Your task to perform on an android device: Add "macbook pro 15 inch" to the cart on amazon.com, then select checkout. Image 0: 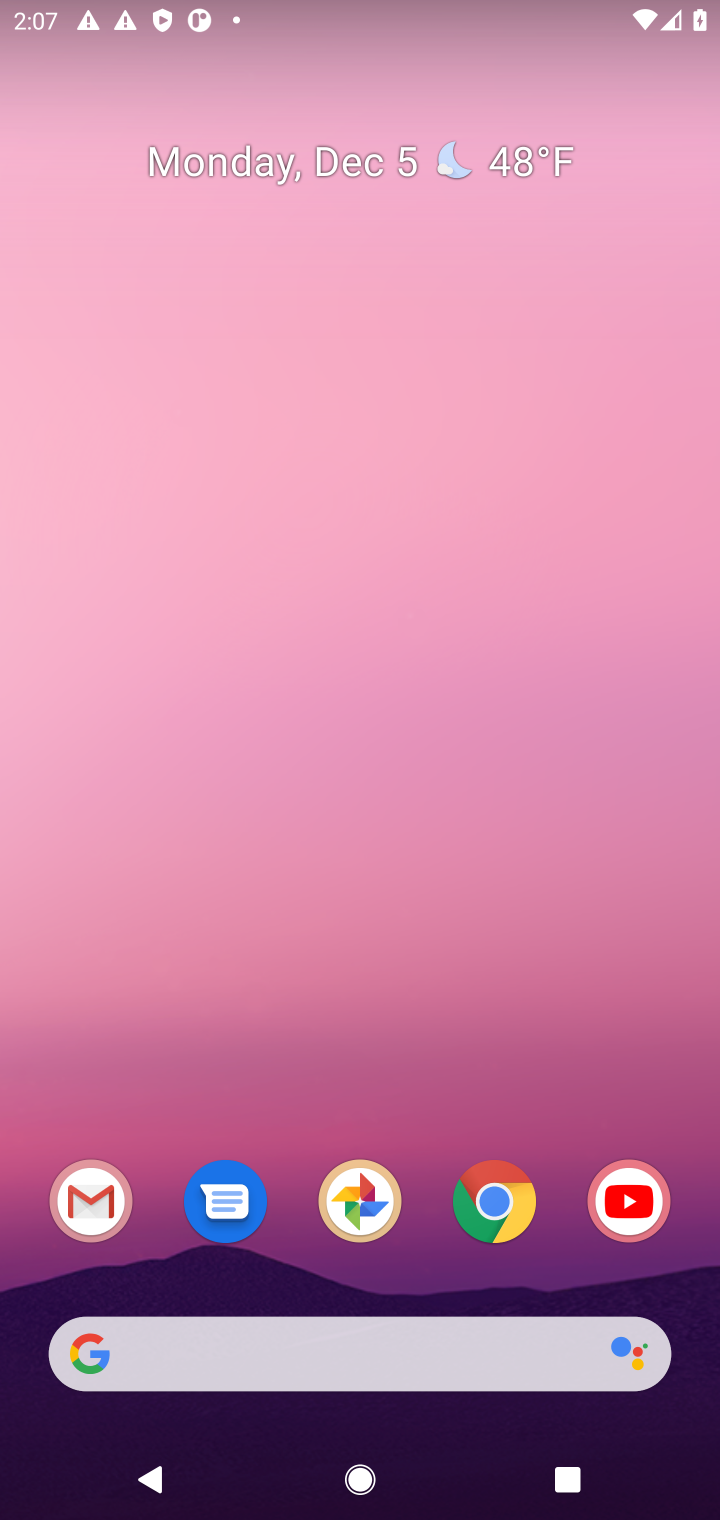
Step 0: click (480, 1192)
Your task to perform on an android device: Add "macbook pro 15 inch" to the cart on amazon.com, then select checkout. Image 1: 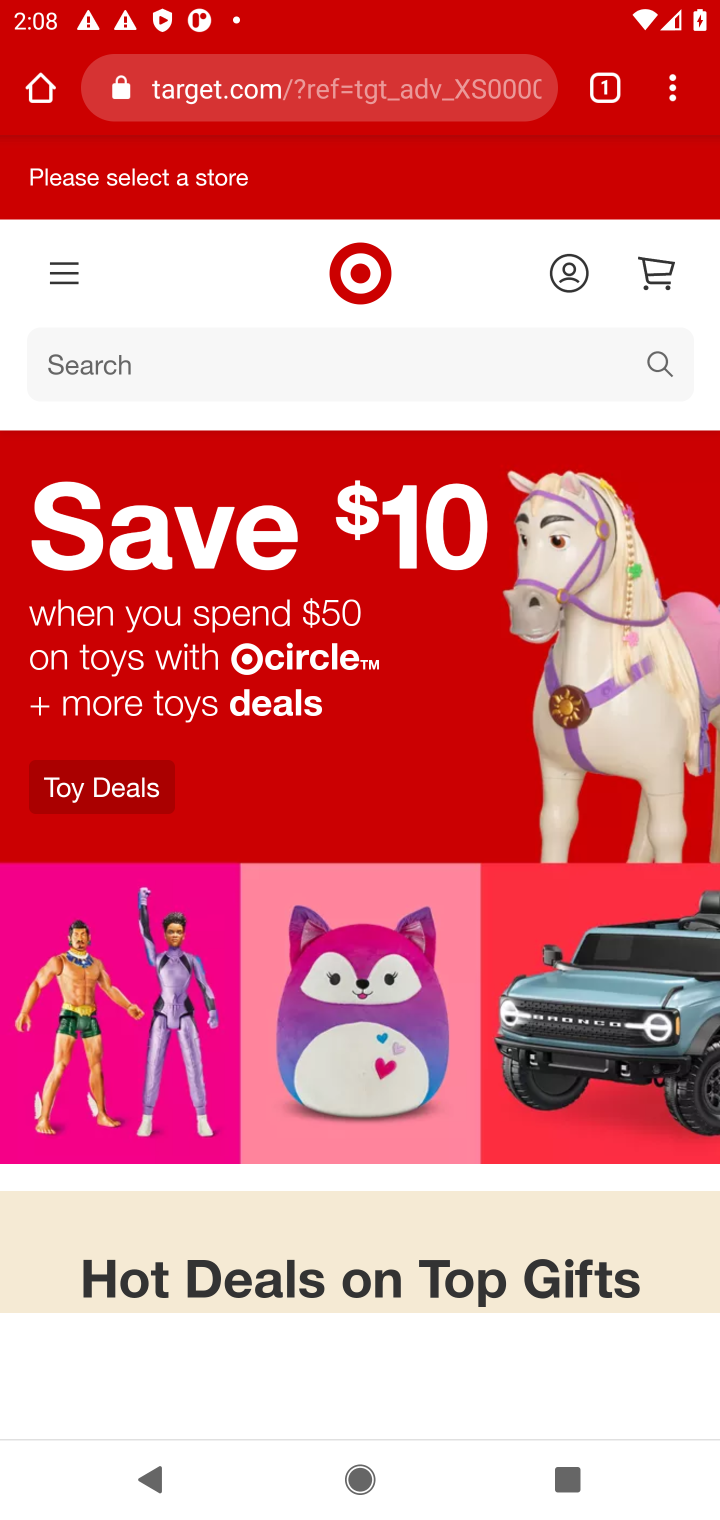
Step 1: click (258, 76)
Your task to perform on an android device: Add "macbook pro 15 inch" to the cart on amazon.com, then select checkout. Image 2: 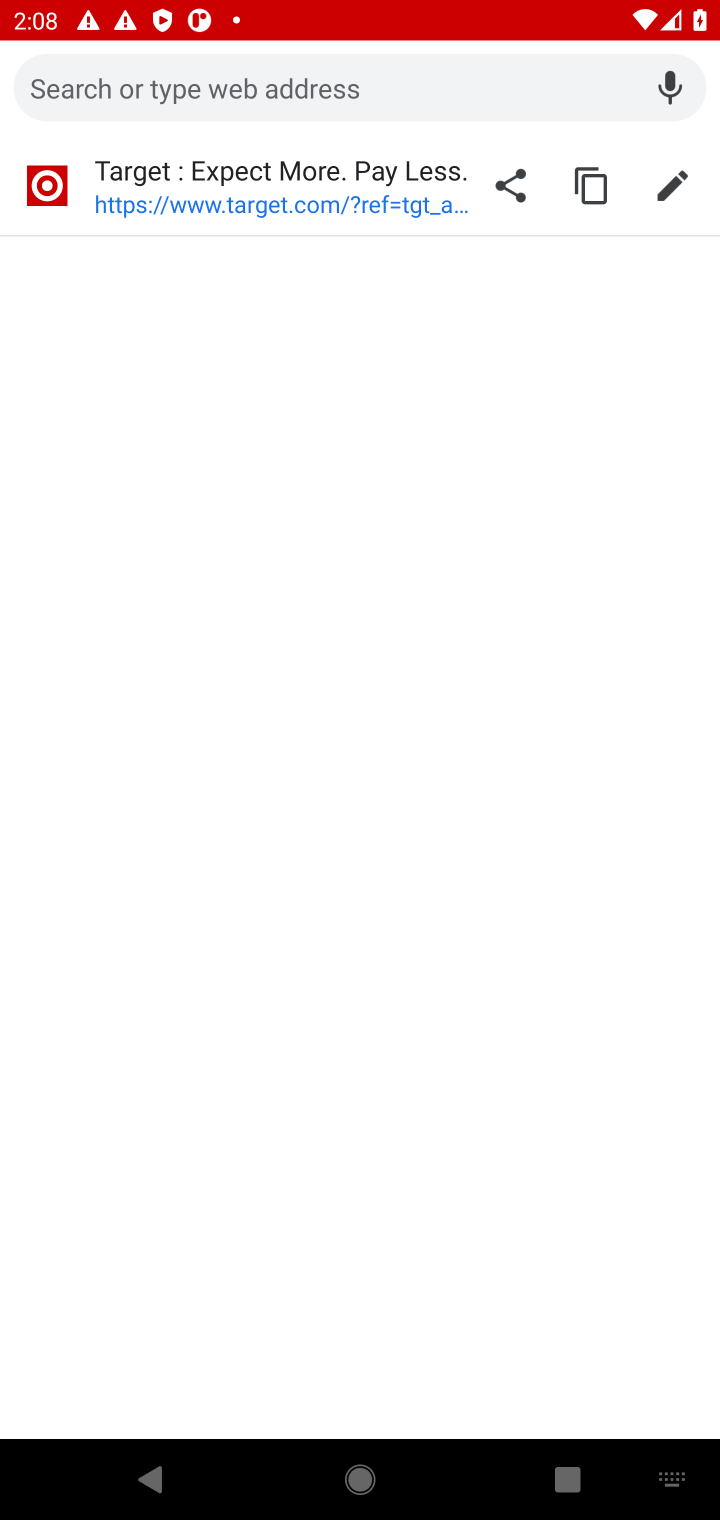
Step 2: type "amazon"
Your task to perform on an android device: Add "macbook pro 15 inch" to the cart on amazon.com, then select checkout. Image 3: 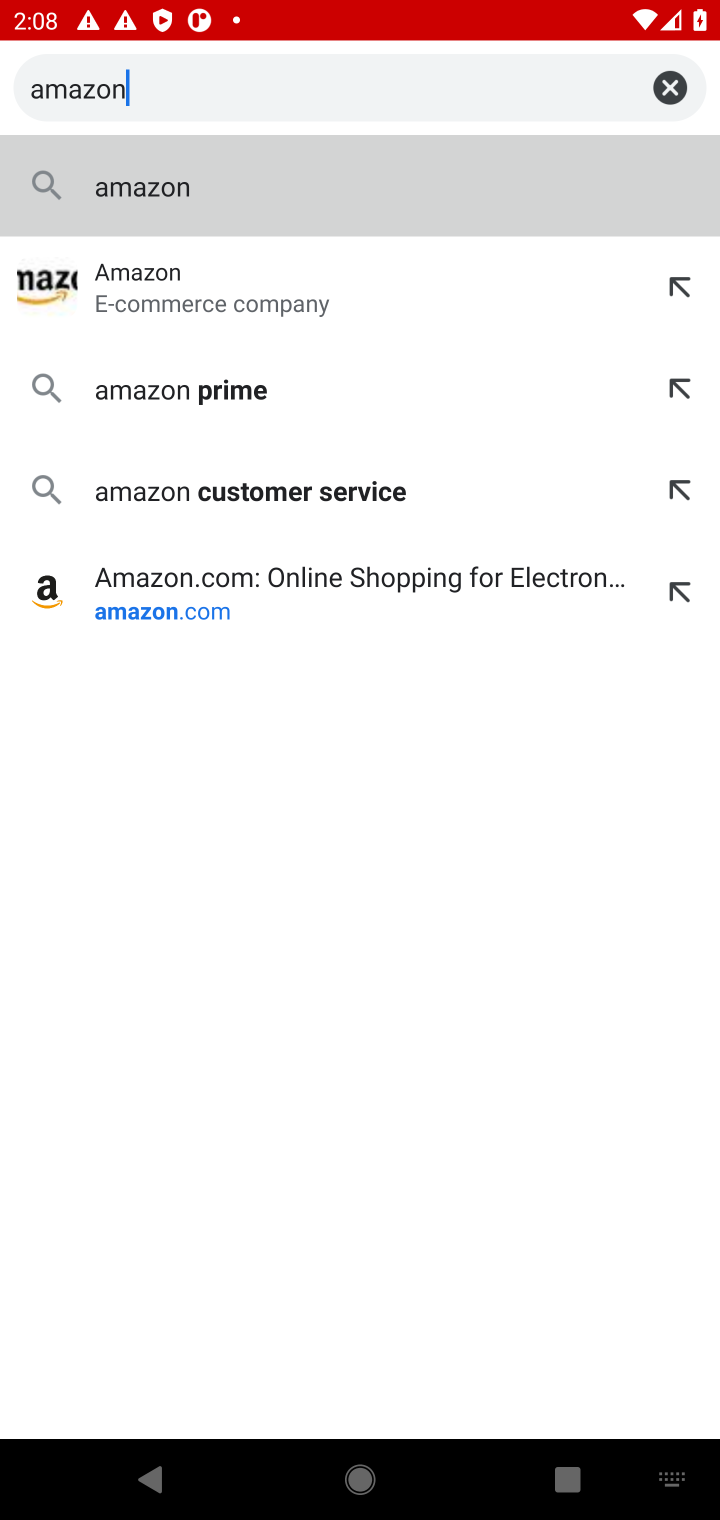
Step 3: click (234, 281)
Your task to perform on an android device: Add "macbook pro 15 inch" to the cart on amazon.com, then select checkout. Image 4: 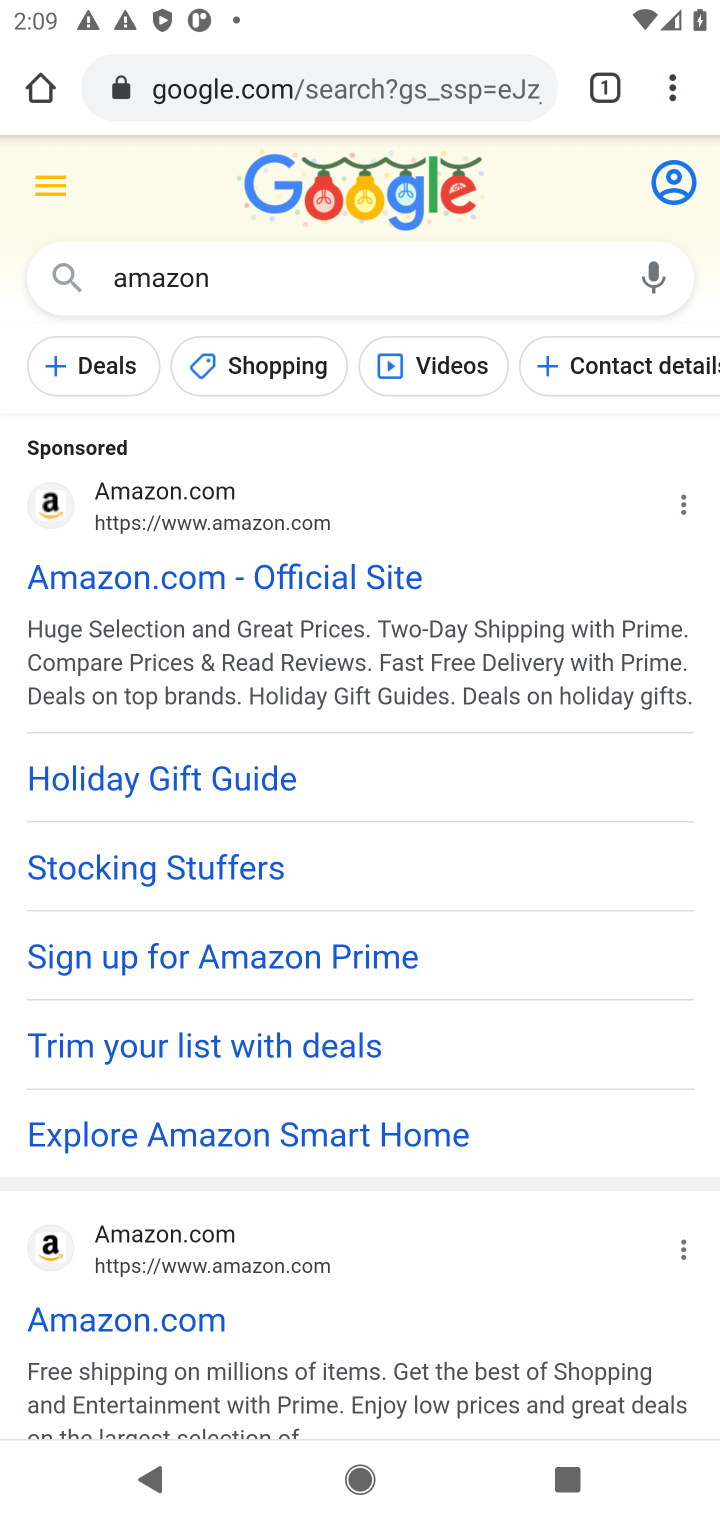
Step 4: click (357, 578)
Your task to perform on an android device: Add "macbook pro 15 inch" to the cart on amazon.com, then select checkout. Image 5: 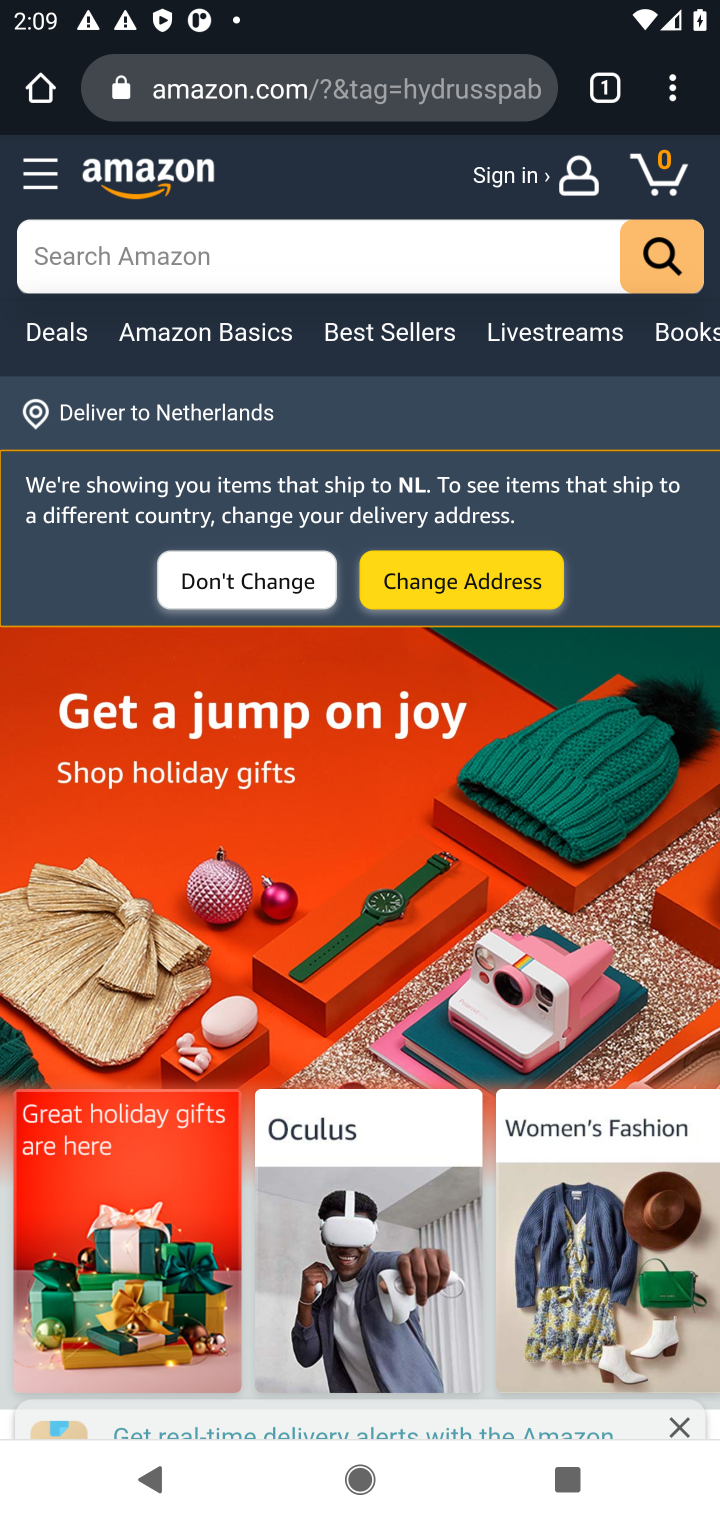
Step 5: click (475, 249)
Your task to perform on an android device: Add "macbook pro 15 inch" to the cart on amazon.com, then select checkout. Image 6: 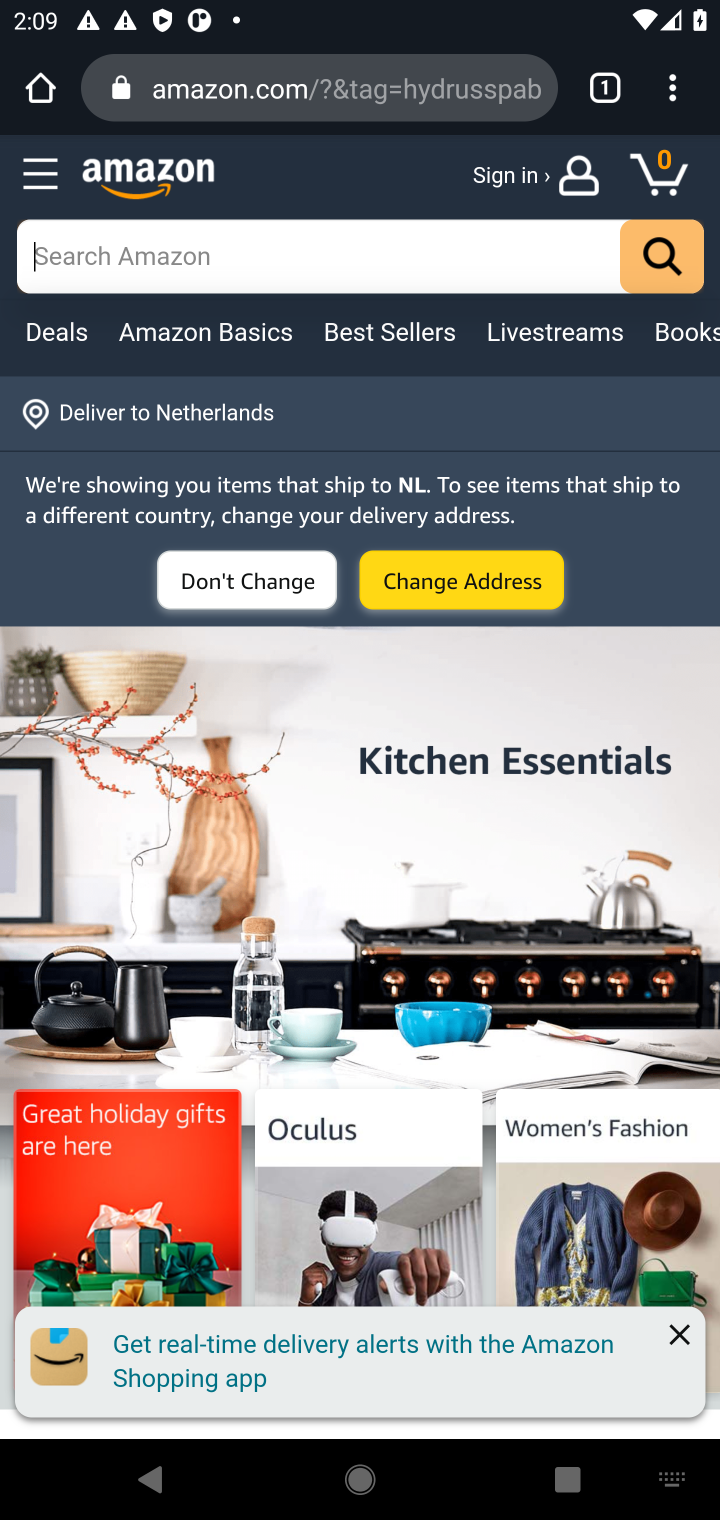
Step 6: type "macbook pro 15 inch"
Your task to perform on an android device: Add "macbook pro 15 inch" to the cart on amazon.com, then select checkout. Image 7: 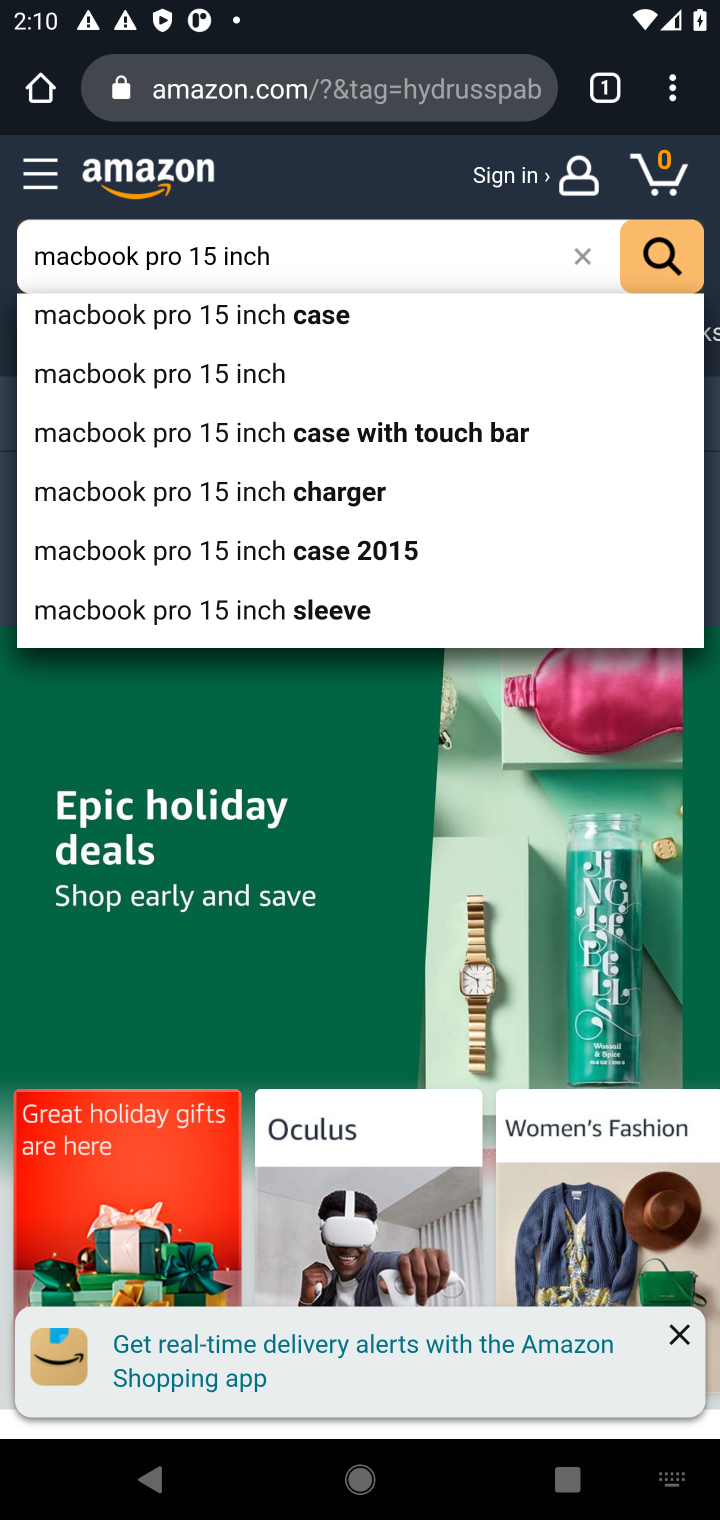
Step 7: click (276, 320)
Your task to perform on an android device: Add "macbook pro 15 inch" to the cart on amazon.com, then select checkout. Image 8: 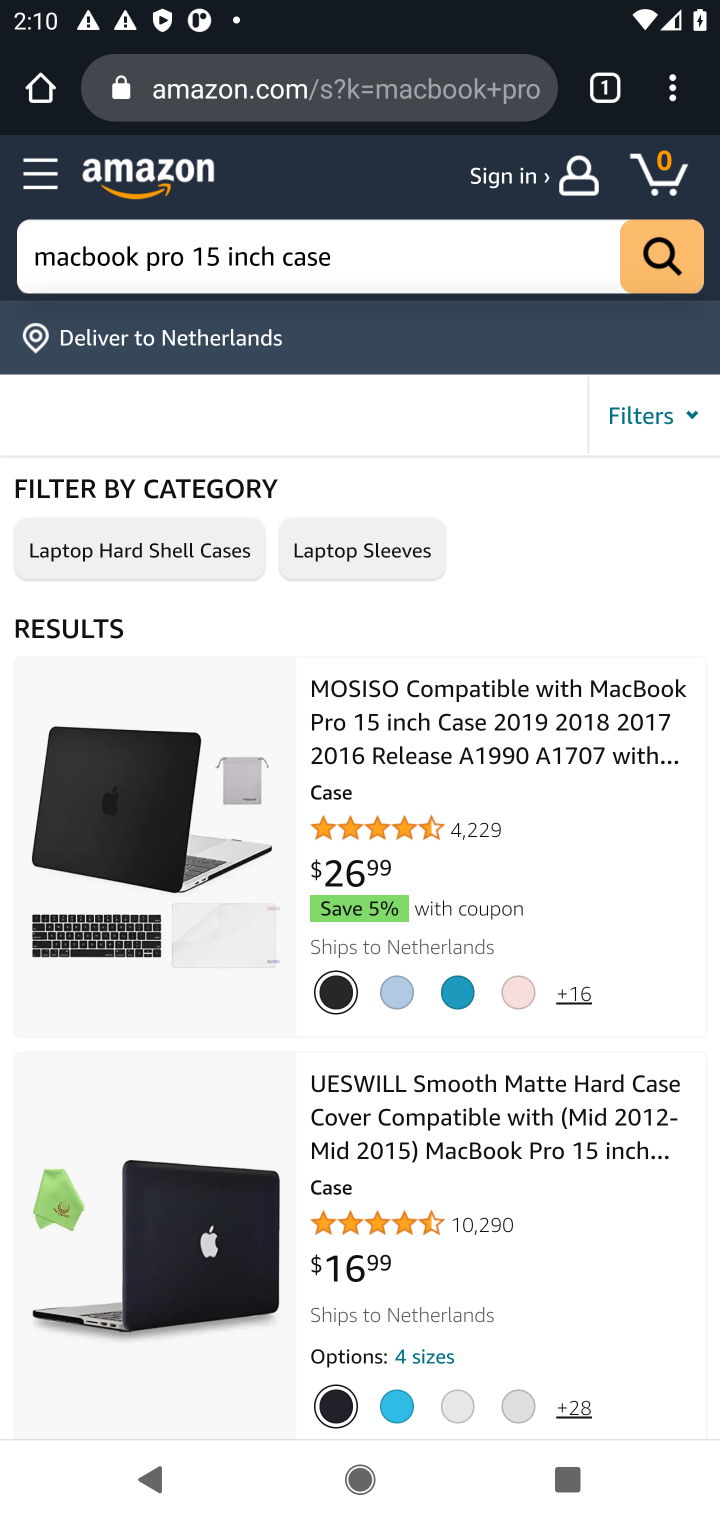
Step 8: click (486, 758)
Your task to perform on an android device: Add "macbook pro 15 inch" to the cart on amazon.com, then select checkout. Image 9: 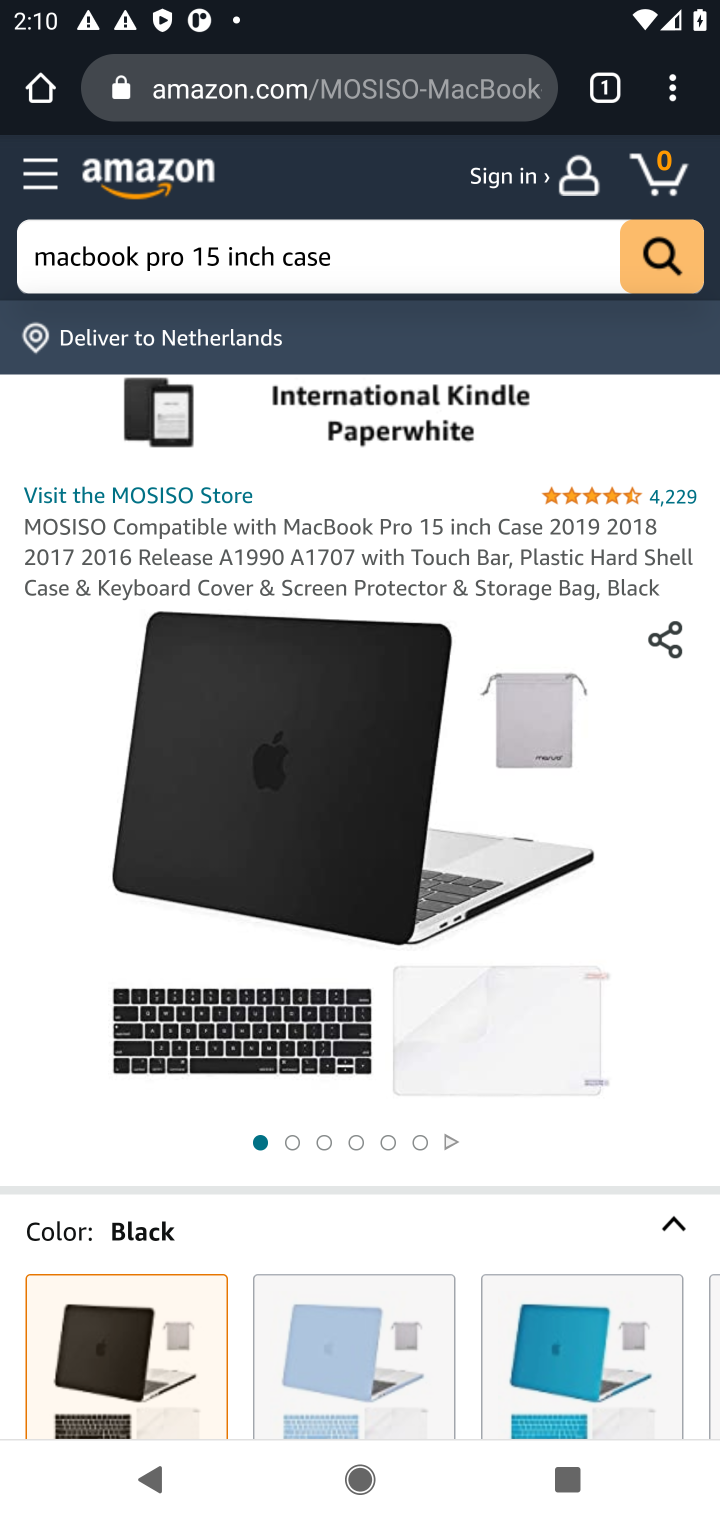
Step 9: drag from (569, 1245) to (409, 464)
Your task to perform on an android device: Add "macbook pro 15 inch" to the cart on amazon.com, then select checkout. Image 10: 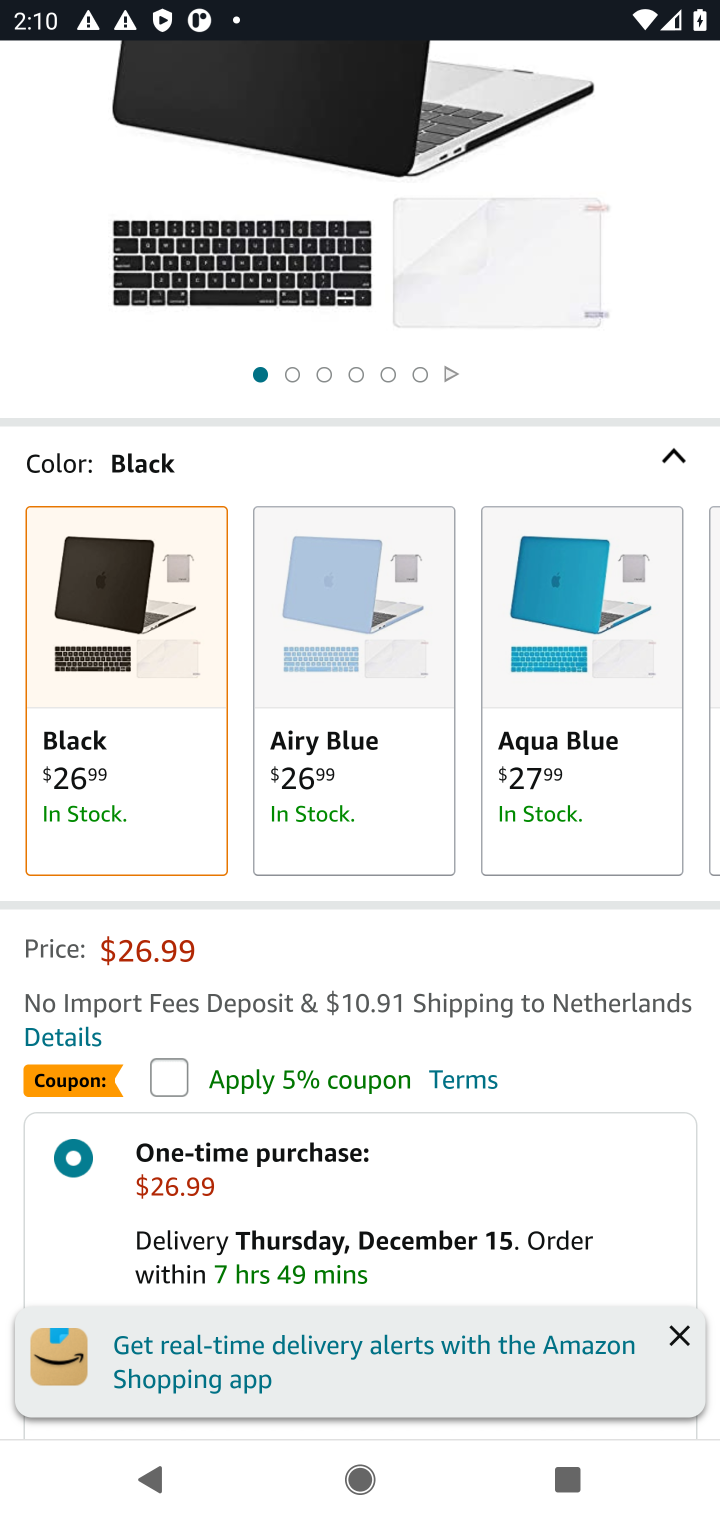
Step 10: drag from (457, 699) to (415, 479)
Your task to perform on an android device: Add "macbook pro 15 inch" to the cart on amazon.com, then select checkout. Image 11: 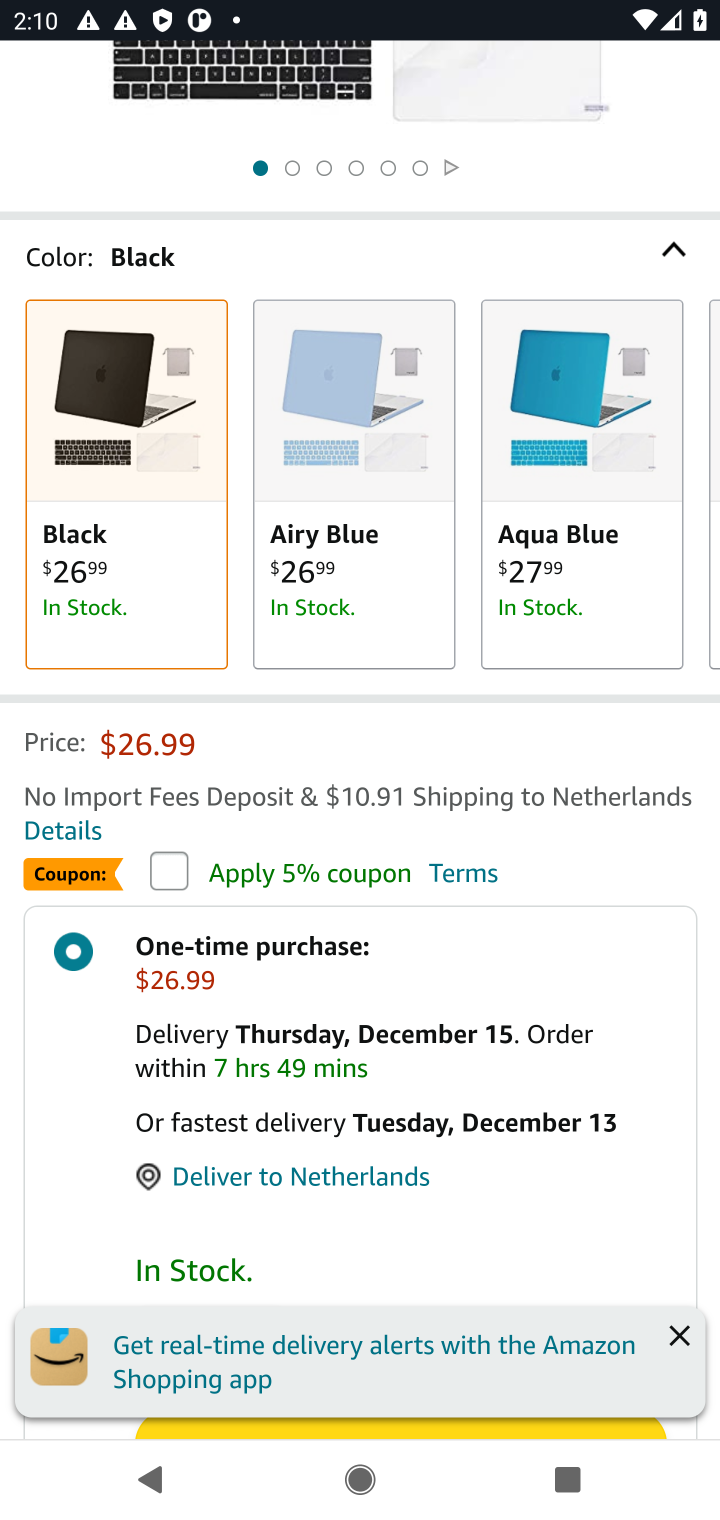
Step 11: drag from (528, 1160) to (486, 142)
Your task to perform on an android device: Add "macbook pro 15 inch" to the cart on amazon.com, then select checkout. Image 12: 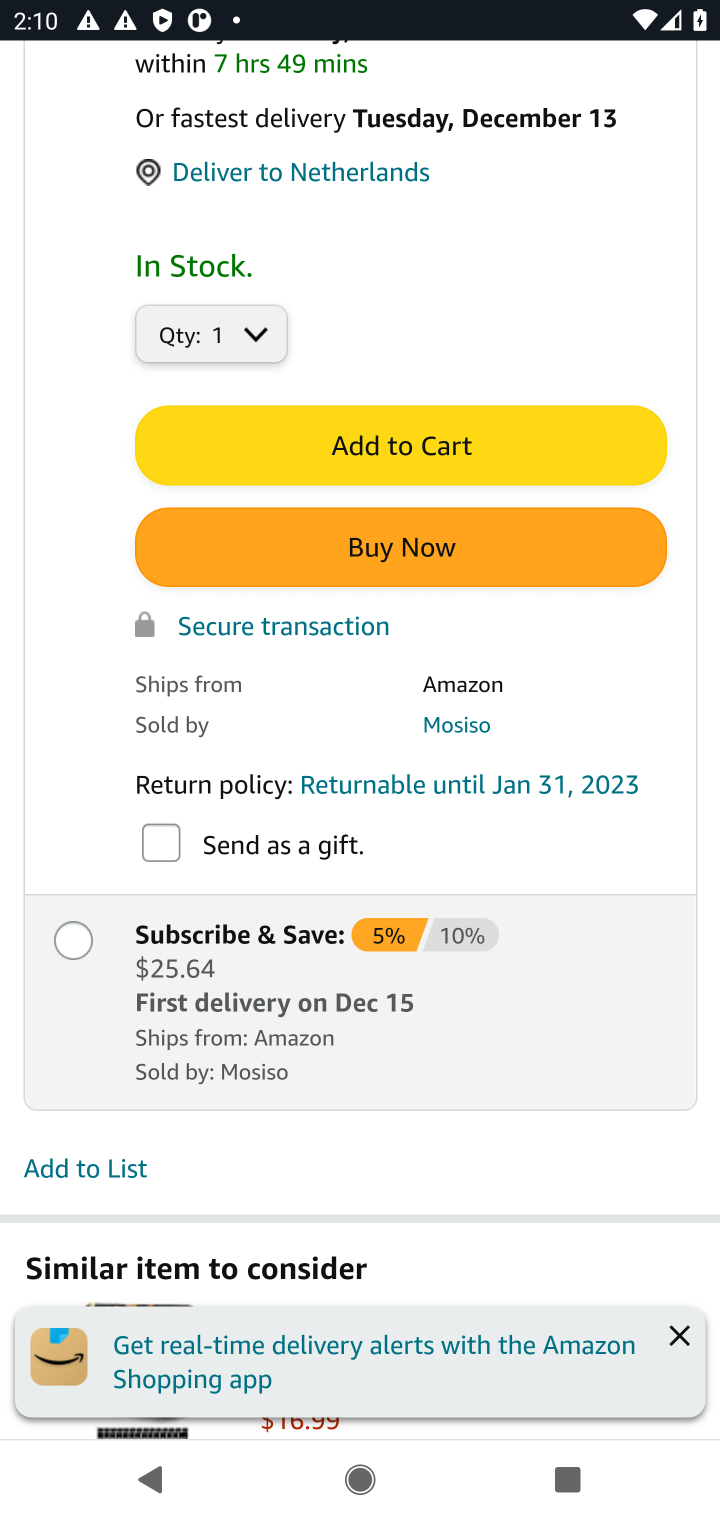
Step 12: click (397, 440)
Your task to perform on an android device: Add "macbook pro 15 inch" to the cart on amazon.com, then select checkout. Image 13: 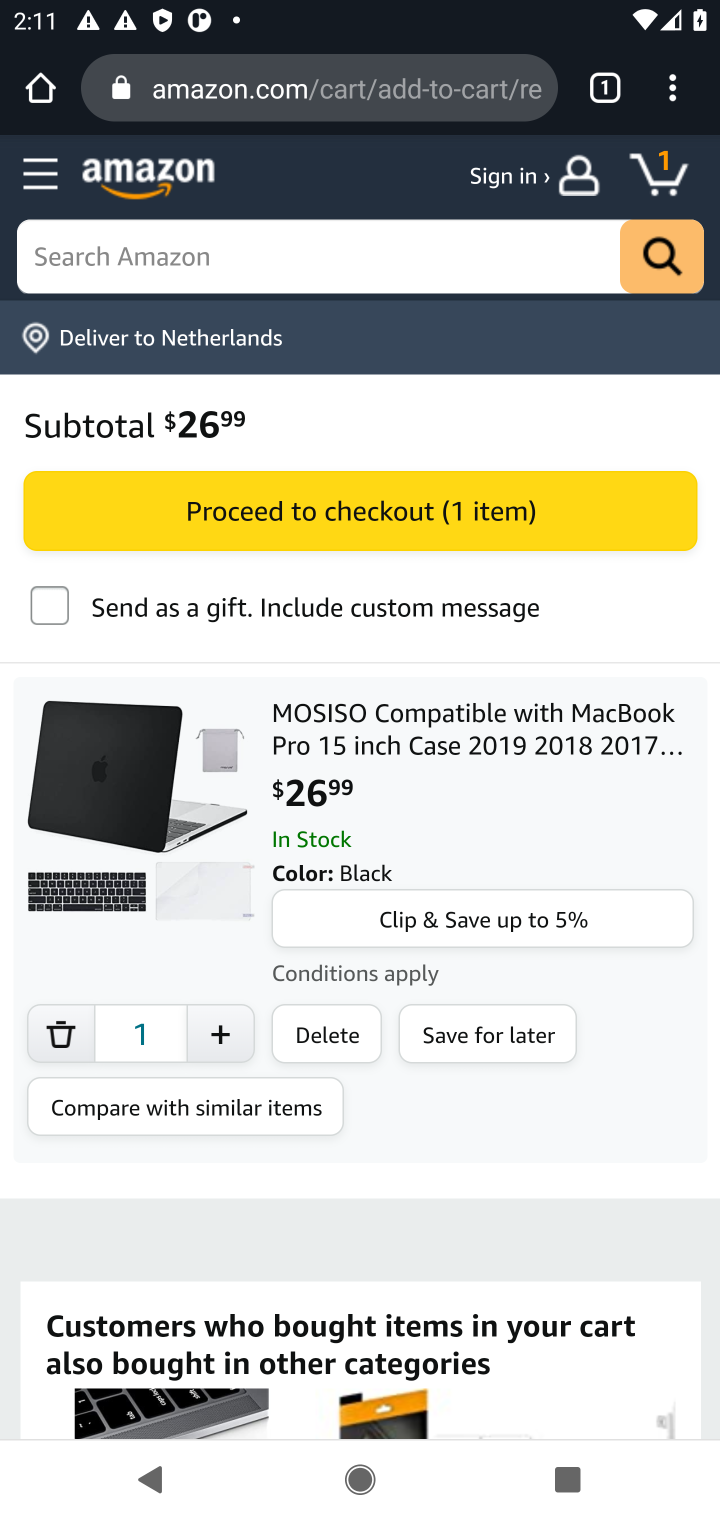
Step 13: task complete